Your task to perform on an android device: Turn on the flashlight Image 0: 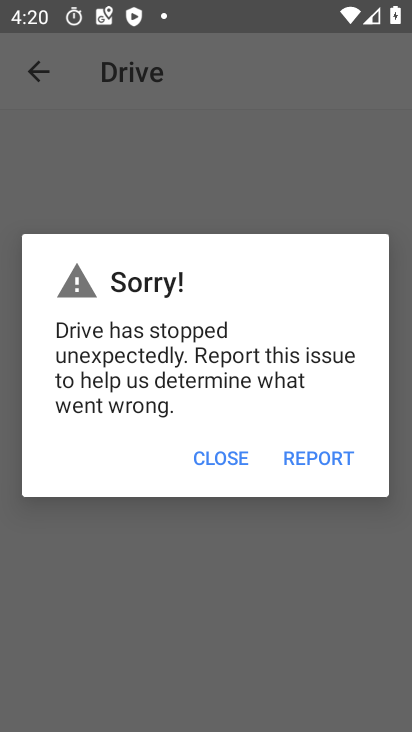
Step 0: press back button
Your task to perform on an android device: Turn on the flashlight Image 1: 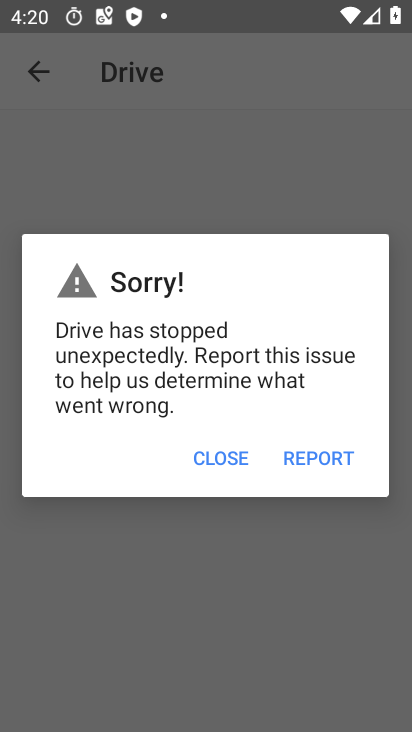
Step 1: press home button
Your task to perform on an android device: Turn on the flashlight Image 2: 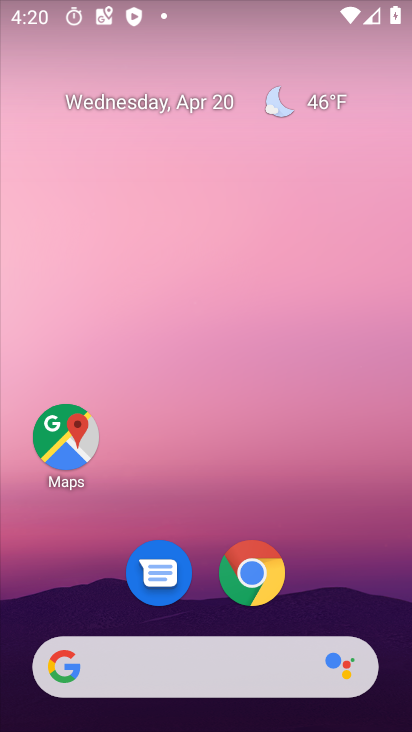
Step 2: drag from (364, 599) to (337, 210)
Your task to perform on an android device: Turn on the flashlight Image 3: 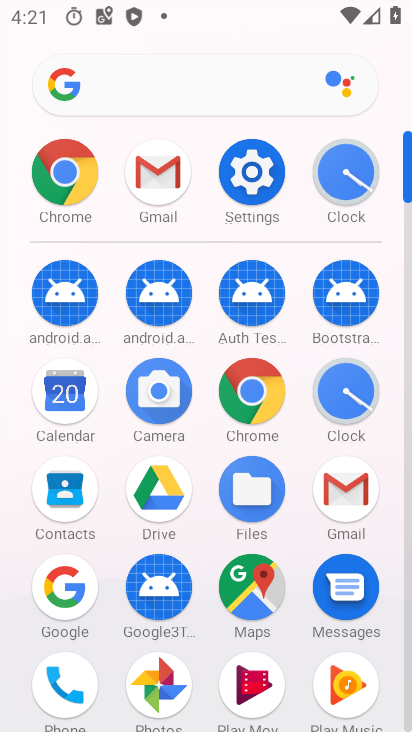
Step 3: click (239, 180)
Your task to perform on an android device: Turn on the flashlight Image 4: 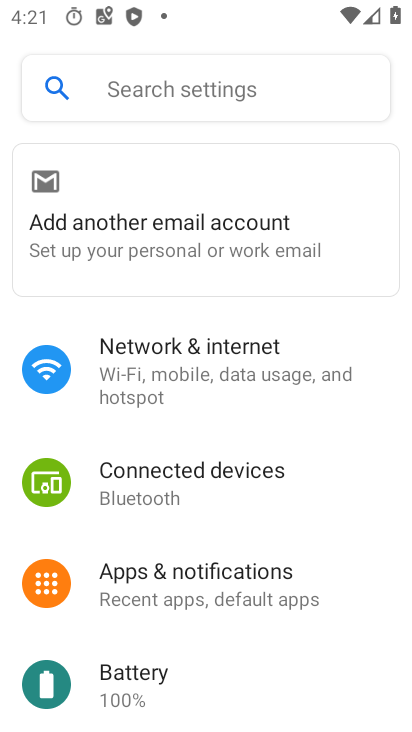
Step 4: drag from (241, 606) to (237, 245)
Your task to perform on an android device: Turn on the flashlight Image 5: 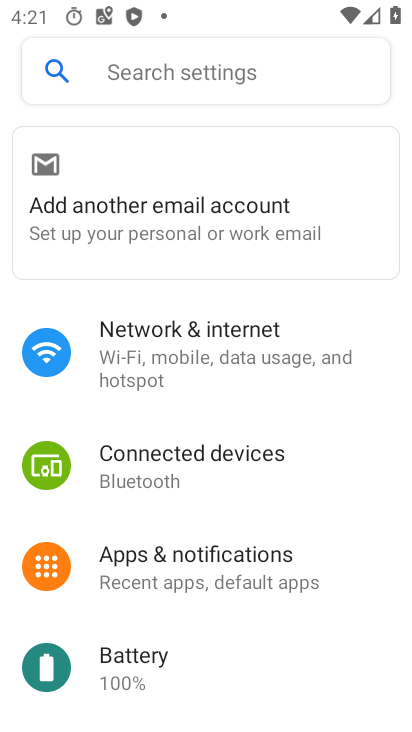
Step 5: drag from (339, 516) to (331, 279)
Your task to perform on an android device: Turn on the flashlight Image 6: 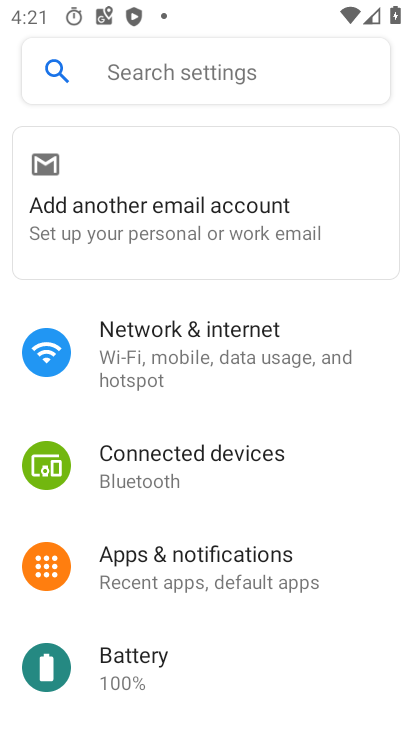
Step 6: drag from (347, 662) to (358, 268)
Your task to perform on an android device: Turn on the flashlight Image 7: 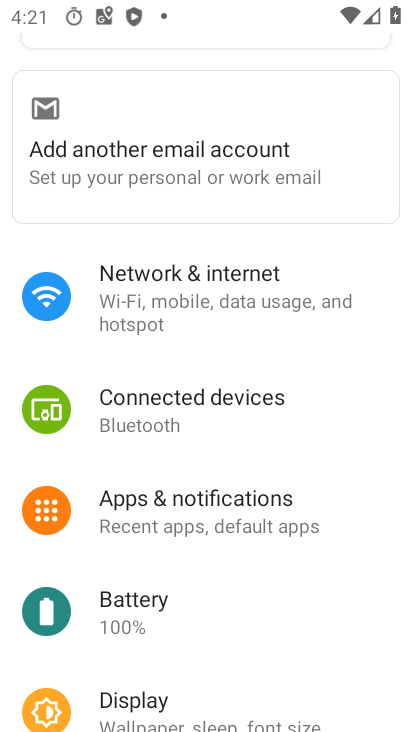
Step 7: click (122, 699)
Your task to perform on an android device: Turn on the flashlight Image 8: 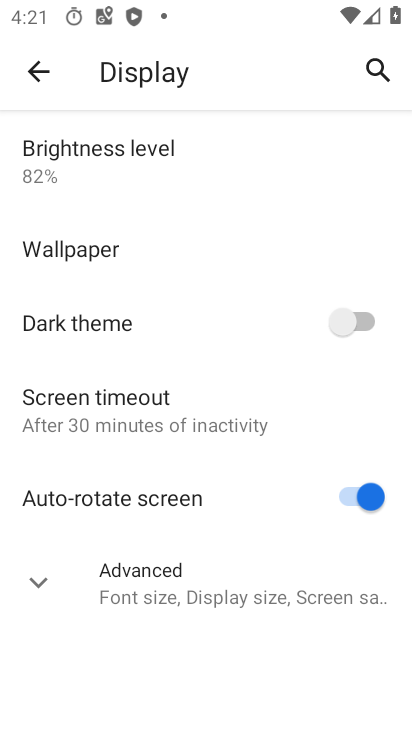
Step 8: task complete